Your task to perform on an android device: delete a single message in the gmail app Image 0: 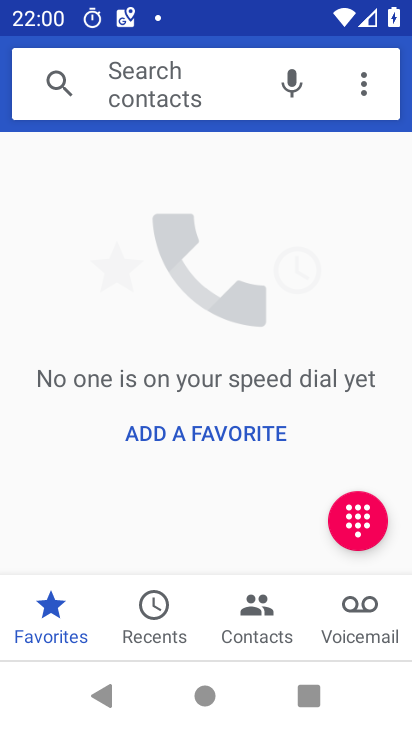
Step 0: press home button
Your task to perform on an android device: delete a single message in the gmail app Image 1: 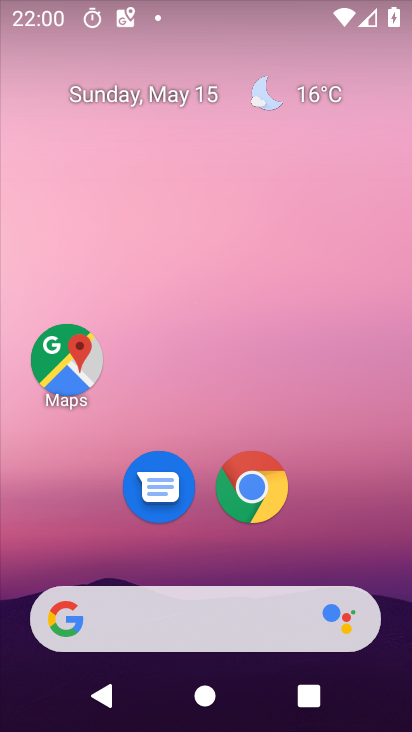
Step 1: drag from (386, 647) to (359, 302)
Your task to perform on an android device: delete a single message in the gmail app Image 2: 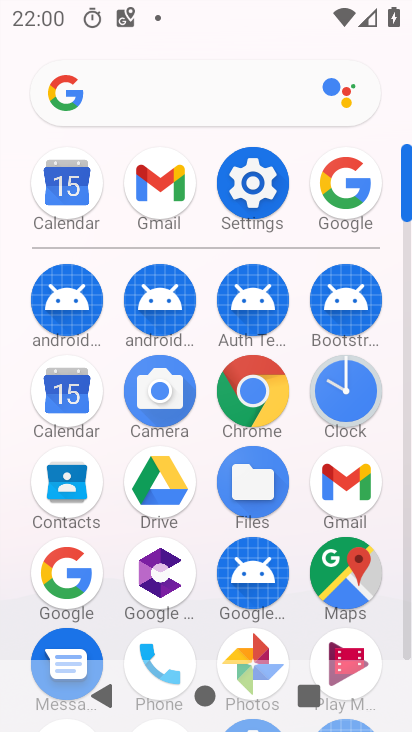
Step 2: click (366, 110)
Your task to perform on an android device: delete a single message in the gmail app Image 3: 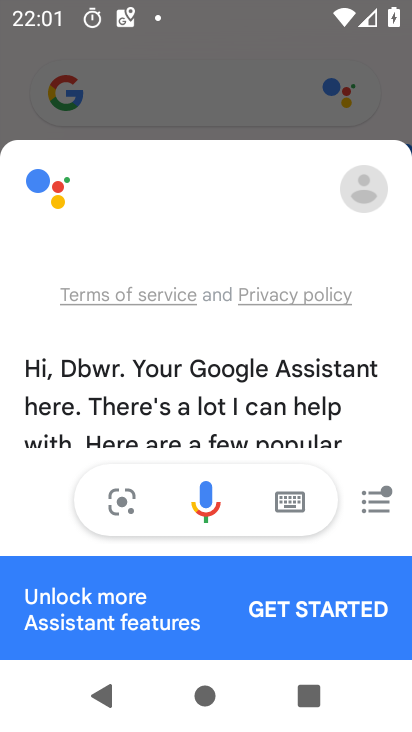
Step 3: press back button
Your task to perform on an android device: delete a single message in the gmail app Image 4: 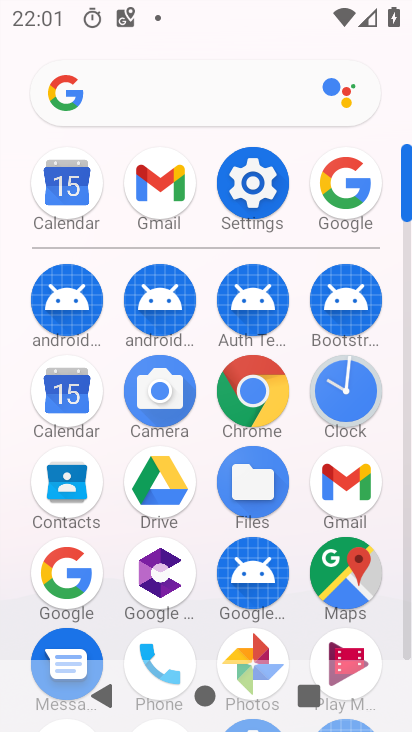
Step 4: click (338, 471)
Your task to perform on an android device: delete a single message in the gmail app Image 5: 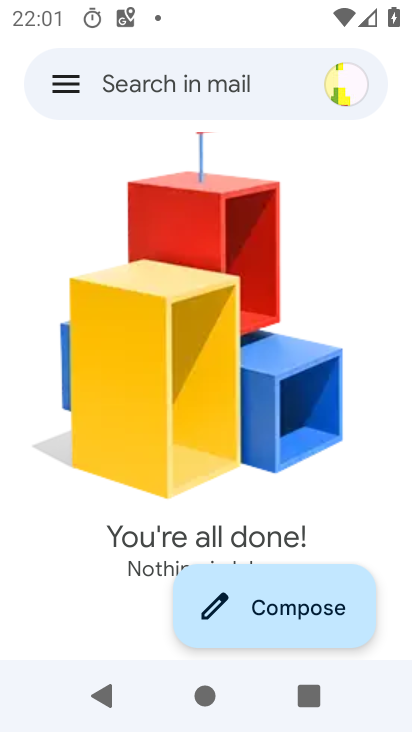
Step 5: click (338, 474)
Your task to perform on an android device: delete a single message in the gmail app Image 6: 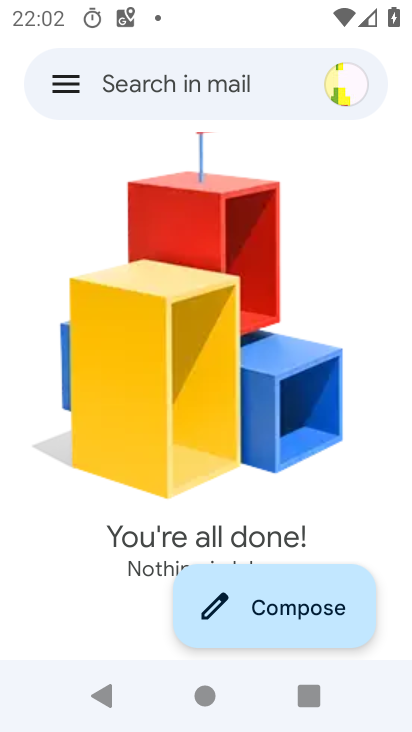
Step 6: task complete